Your task to perform on an android device: Go to Android settings Image 0: 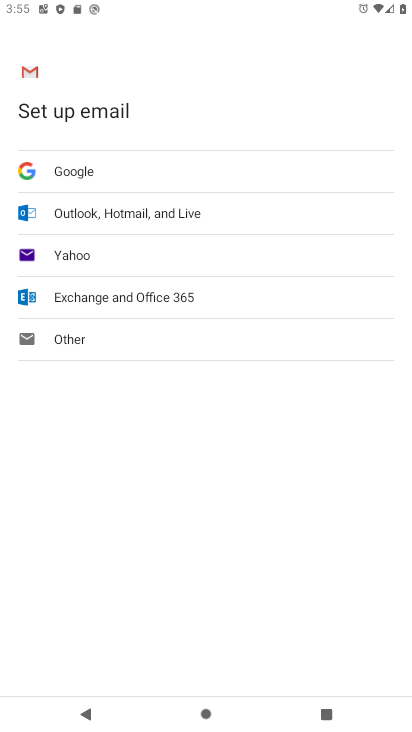
Step 0: press home button
Your task to perform on an android device: Go to Android settings Image 1: 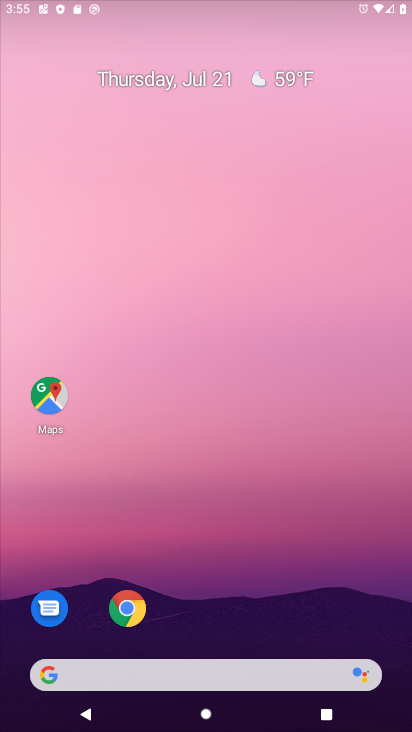
Step 1: drag from (185, 620) to (196, 39)
Your task to perform on an android device: Go to Android settings Image 2: 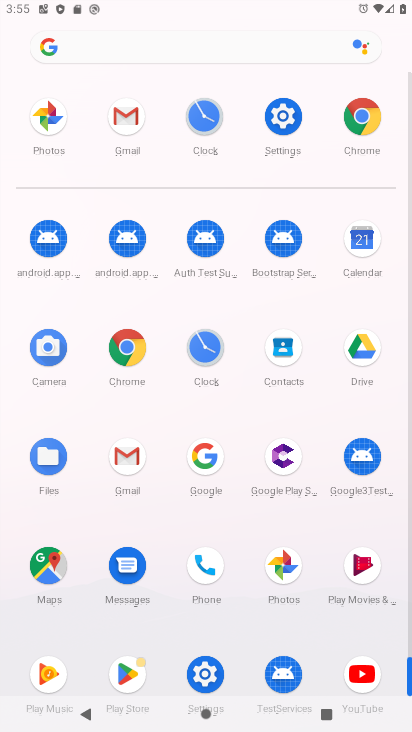
Step 2: click (287, 113)
Your task to perform on an android device: Go to Android settings Image 3: 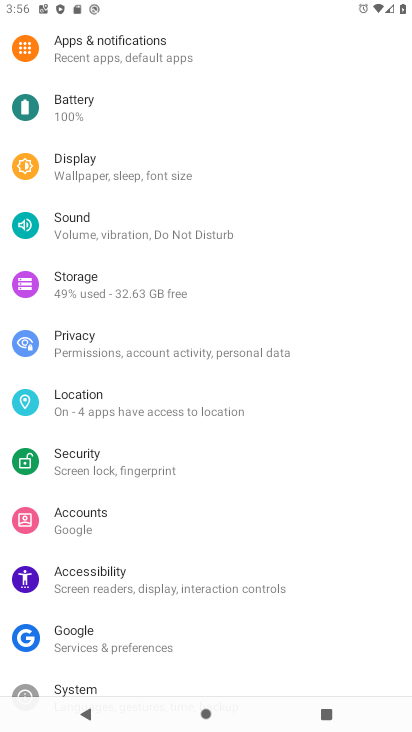
Step 3: drag from (126, 648) to (186, 93)
Your task to perform on an android device: Go to Android settings Image 4: 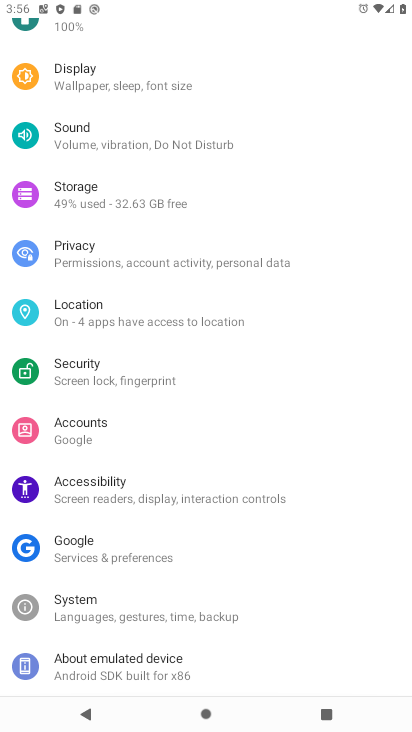
Step 4: click (188, 672)
Your task to perform on an android device: Go to Android settings Image 5: 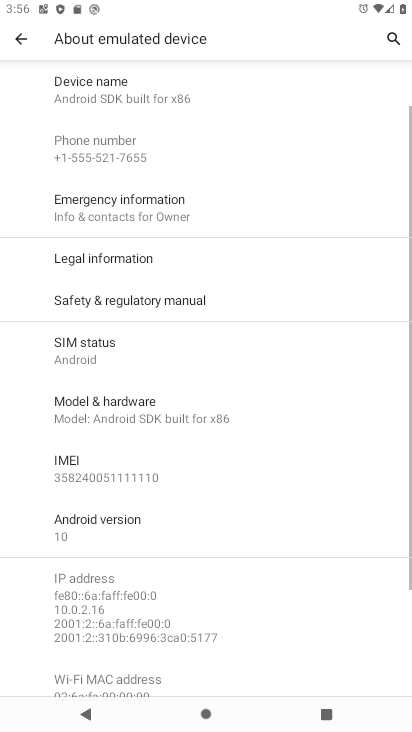
Step 5: click (106, 523)
Your task to perform on an android device: Go to Android settings Image 6: 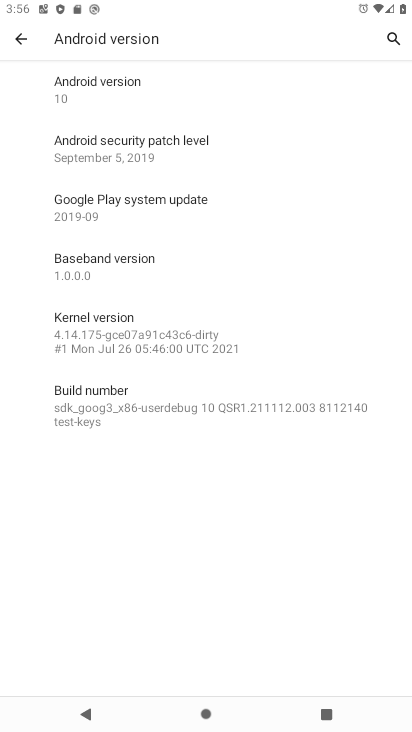
Step 6: task complete